Your task to perform on an android device: check storage Image 0: 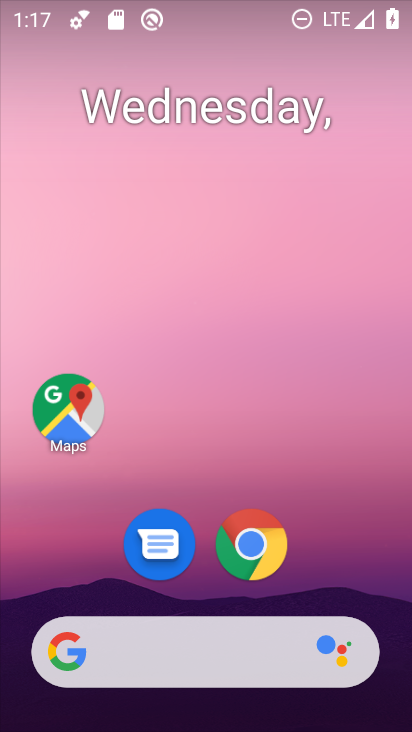
Step 0: drag from (334, 524) to (362, 121)
Your task to perform on an android device: check storage Image 1: 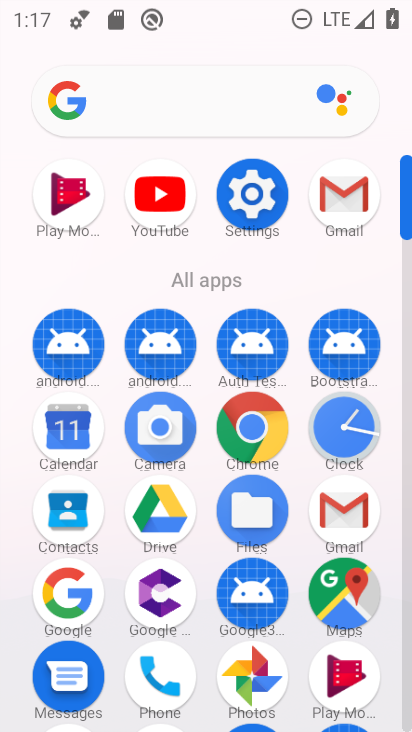
Step 1: click (244, 183)
Your task to perform on an android device: check storage Image 2: 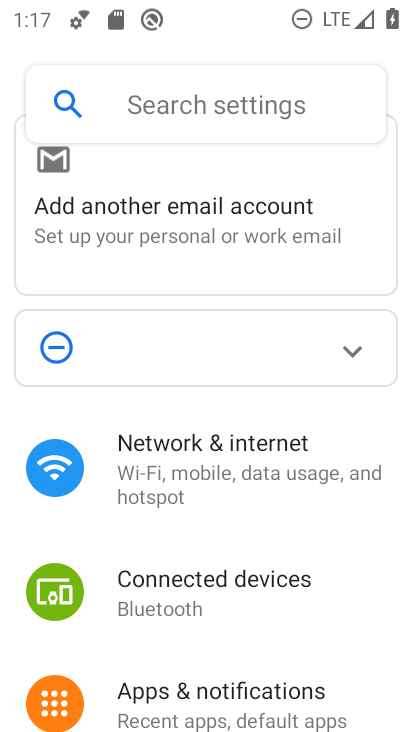
Step 2: drag from (191, 542) to (188, 126)
Your task to perform on an android device: check storage Image 3: 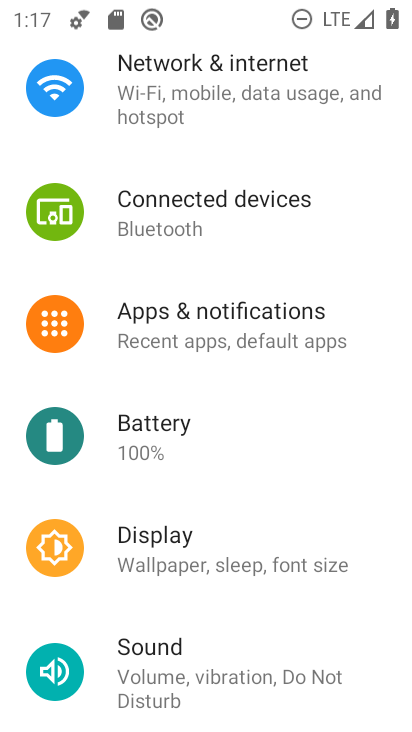
Step 3: drag from (133, 623) to (159, 298)
Your task to perform on an android device: check storage Image 4: 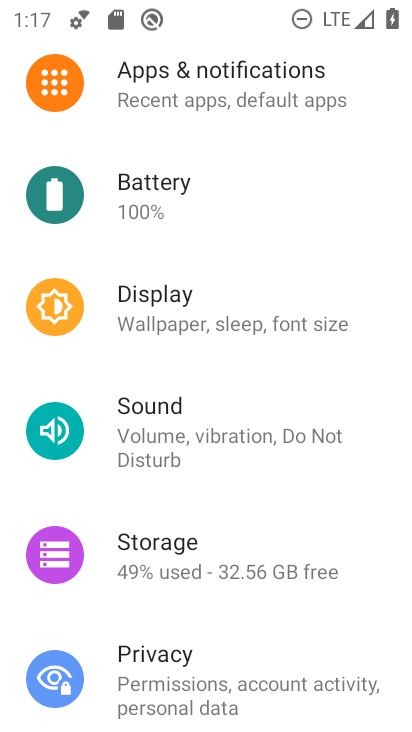
Step 4: drag from (221, 639) to (269, 442)
Your task to perform on an android device: check storage Image 5: 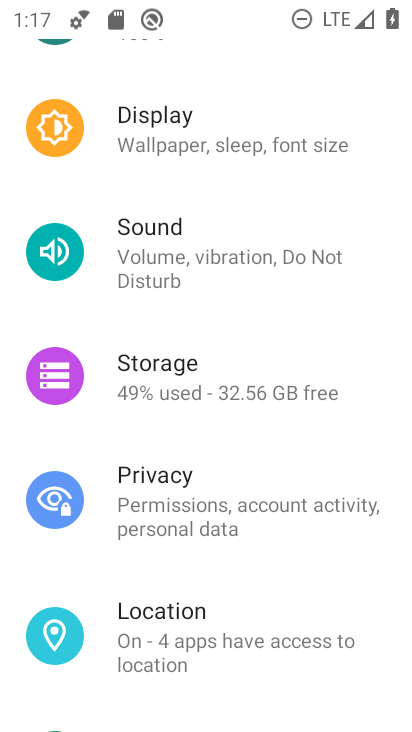
Step 5: click (250, 356)
Your task to perform on an android device: check storage Image 6: 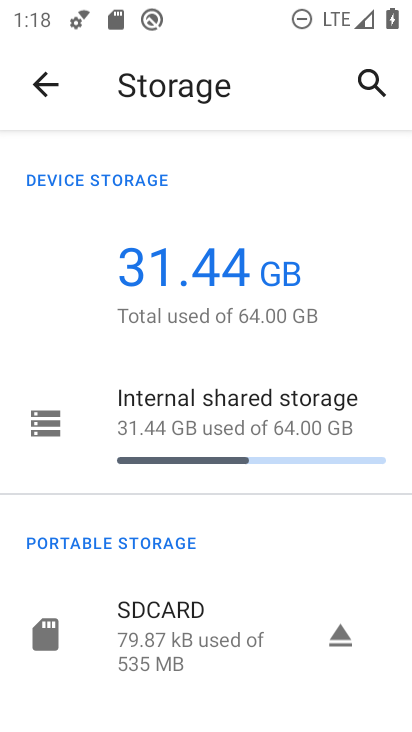
Step 6: task complete